Your task to perform on an android device: turn on improve location accuracy Image 0: 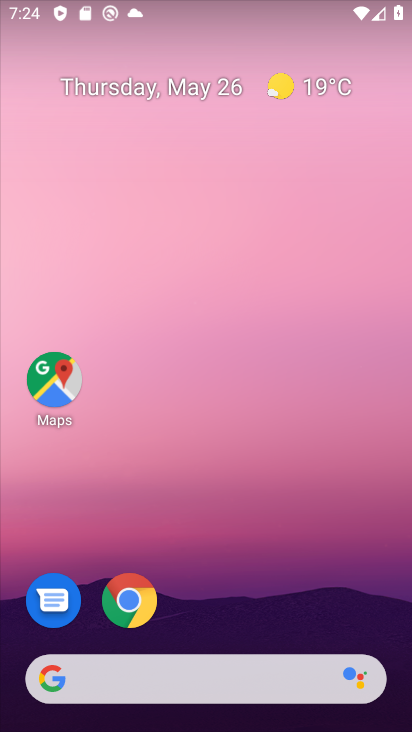
Step 0: press home button
Your task to perform on an android device: turn on improve location accuracy Image 1: 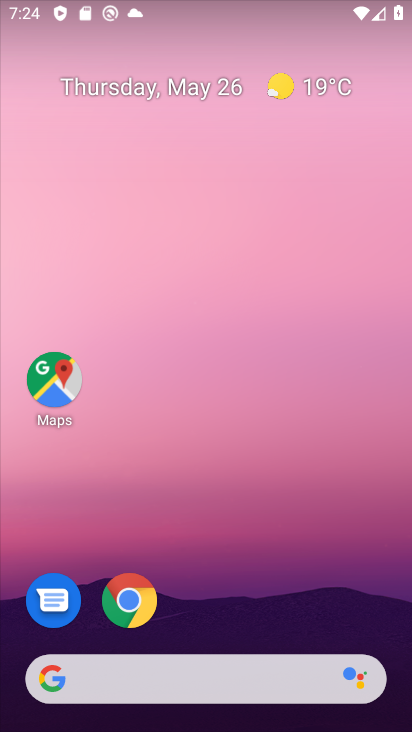
Step 1: drag from (210, 624) to (210, 242)
Your task to perform on an android device: turn on improve location accuracy Image 2: 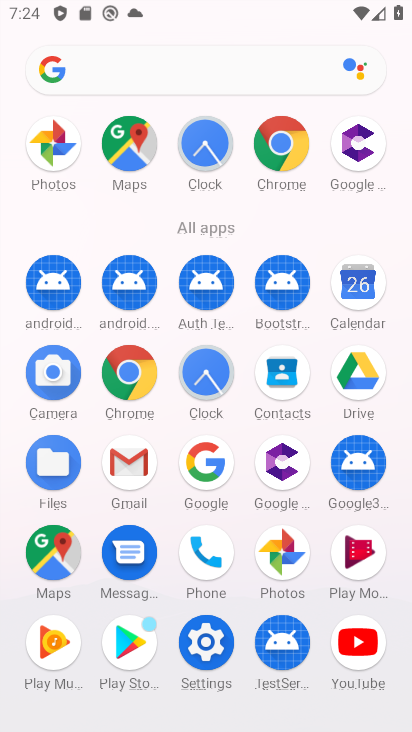
Step 2: click (203, 631)
Your task to perform on an android device: turn on improve location accuracy Image 3: 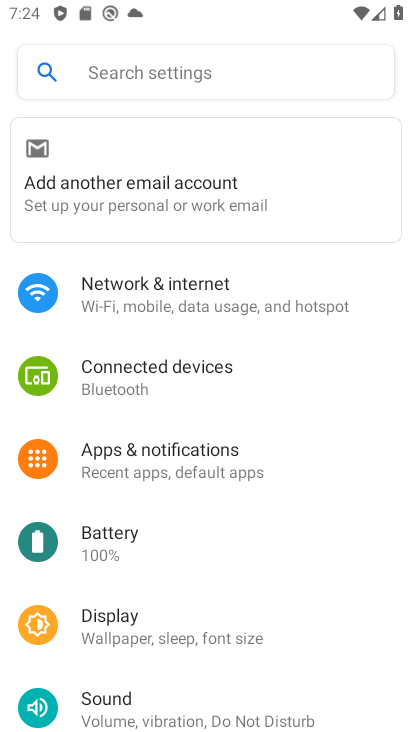
Step 3: drag from (197, 668) to (189, 329)
Your task to perform on an android device: turn on improve location accuracy Image 4: 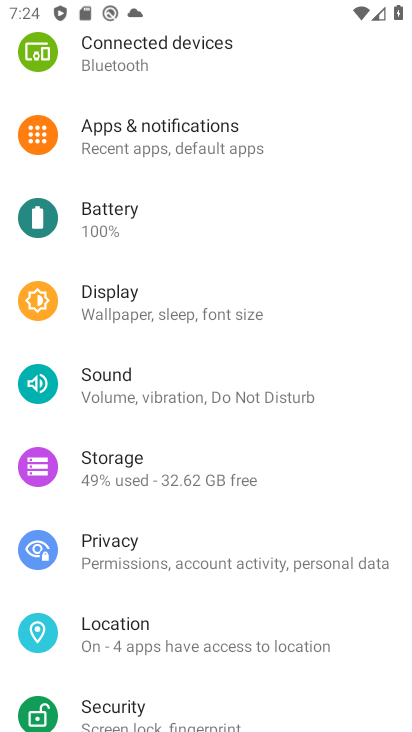
Step 4: click (104, 625)
Your task to perform on an android device: turn on improve location accuracy Image 5: 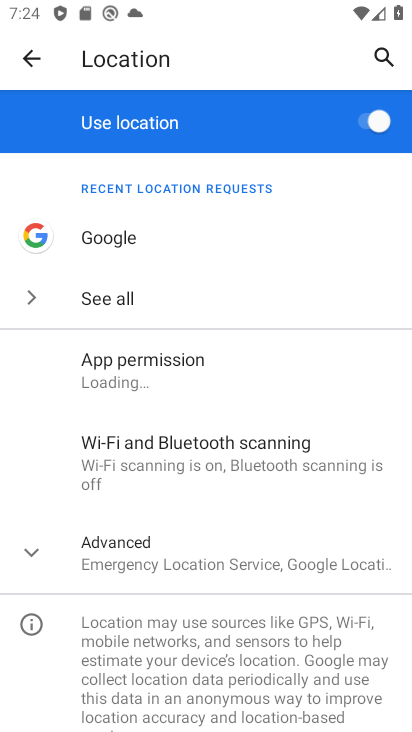
Step 5: click (122, 556)
Your task to perform on an android device: turn on improve location accuracy Image 6: 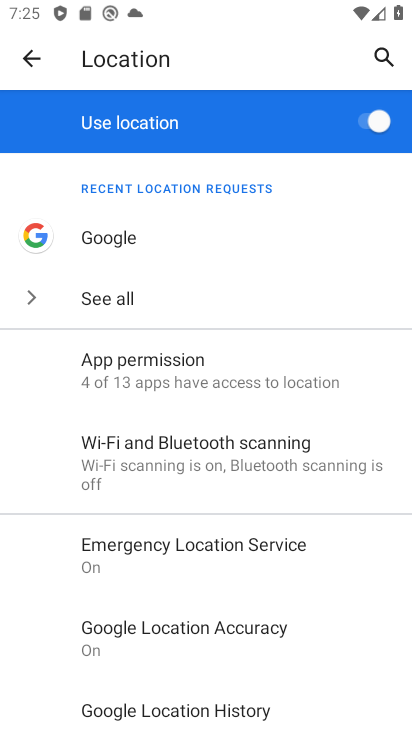
Step 6: click (200, 628)
Your task to perform on an android device: turn on improve location accuracy Image 7: 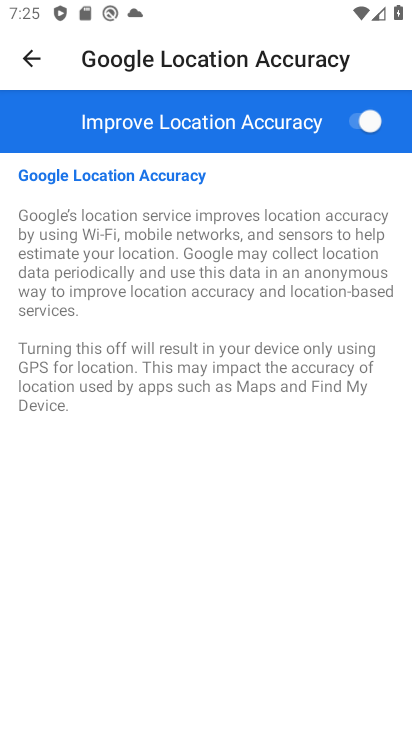
Step 7: task complete